Your task to perform on an android device: Search for pizza restaurants on Maps Image 0: 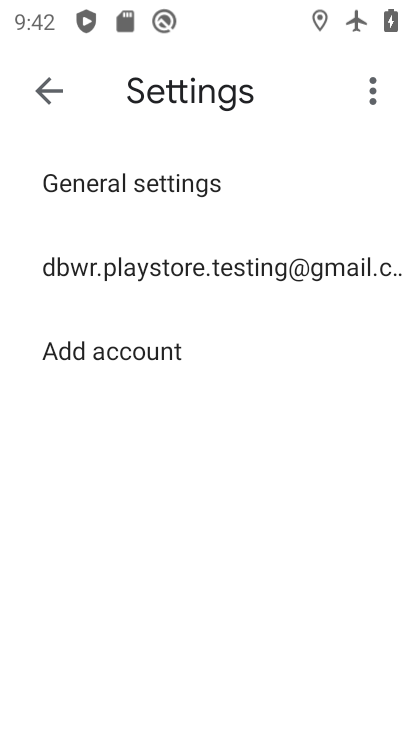
Step 0: press home button
Your task to perform on an android device: Search for pizza restaurants on Maps Image 1: 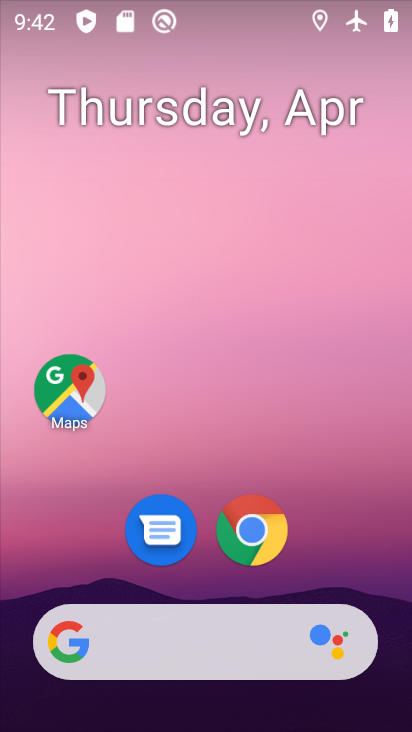
Step 1: drag from (366, 582) to (180, 33)
Your task to perform on an android device: Search for pizza restaurants on Maps Image 2: 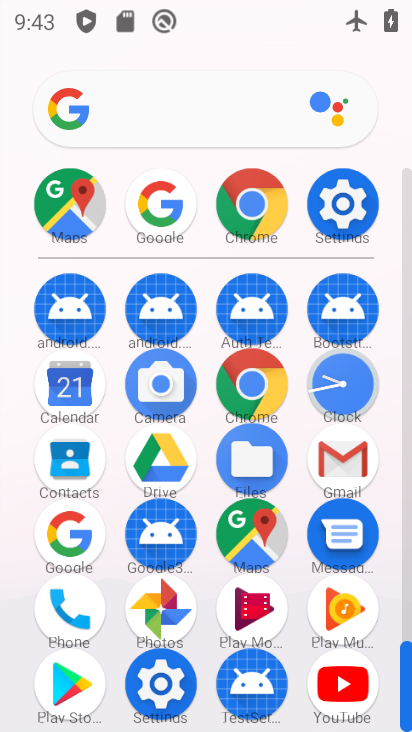
Step 2: click (251, 538)
Your task to perform on an android device: Search for pizza restaurants on Maps Image 3: 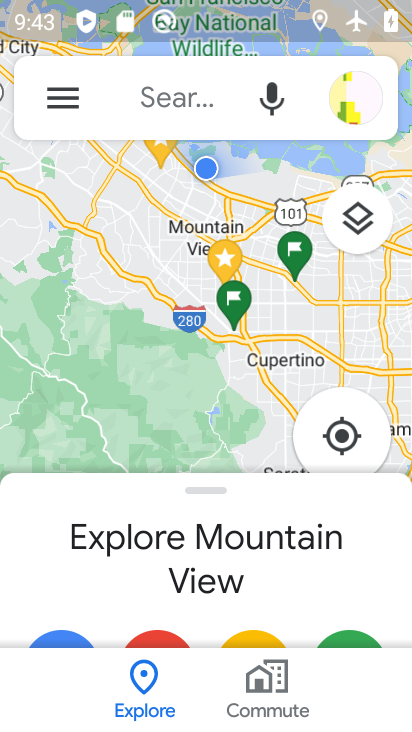
Step 3: click (186, 90)
Your task to perform on an android device: Search for pizza restaurants on Maps Image 4: 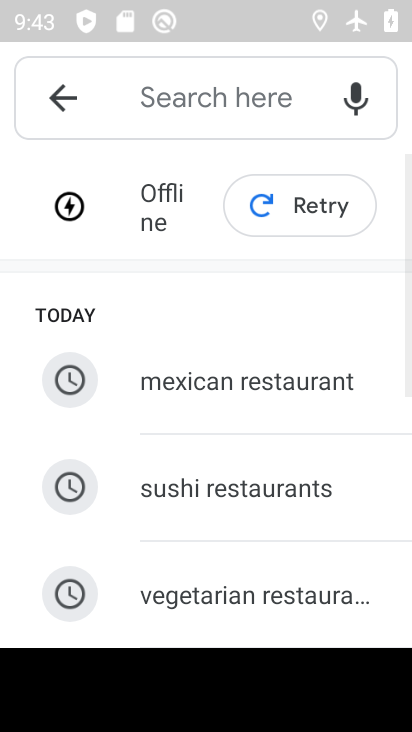
Step 4: drag from (193, 581) to (205, 156)
Your task to perform on an android device: Search for pizza restaurants on Maps Image 5: 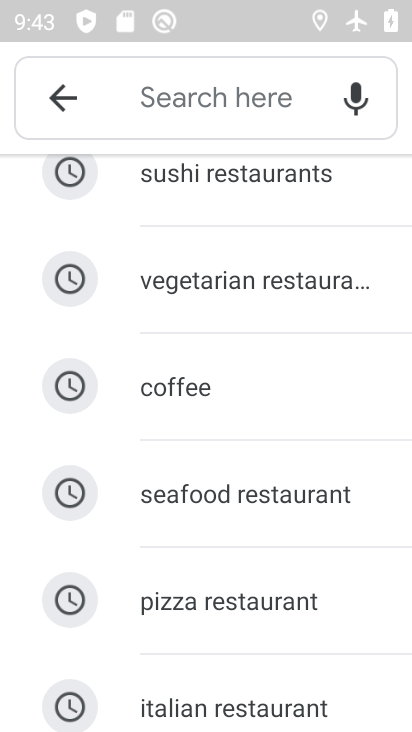
Step 5: click (229, 602)
Your task to perform on an android device: Search for pizza restaurants on Maps Image 6: 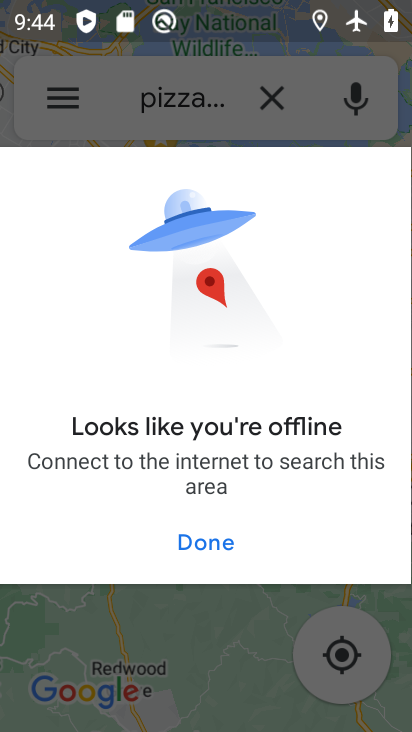
Step 6: task complete